Your task to perform on an android device: turn off notifications settings in the gmail app Image 0: 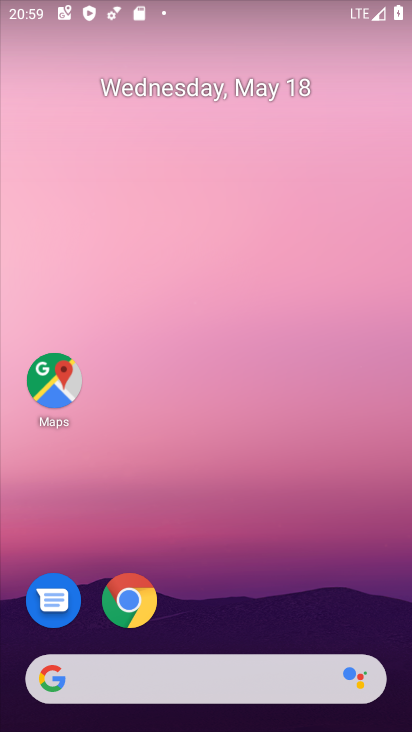
Step 0: drag from (197, 443) to (223, 75)
Your task to perform on an android device: turn off notifications settings in the gmail app Image 1: 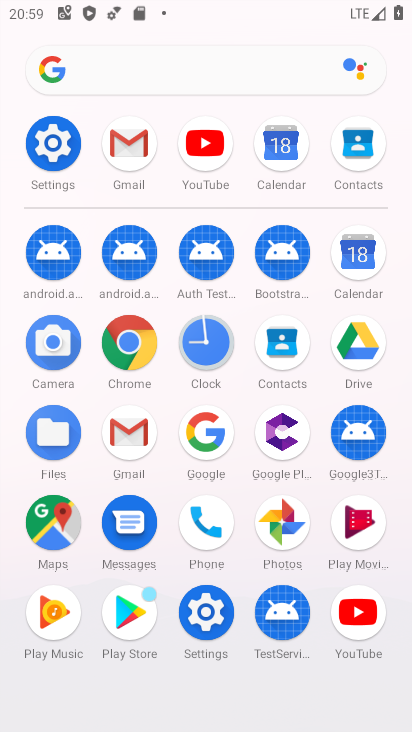
Step 1: click (116, 432)
Your task to perform on an android device: turn off notifications settings in the gmail app Image 2: 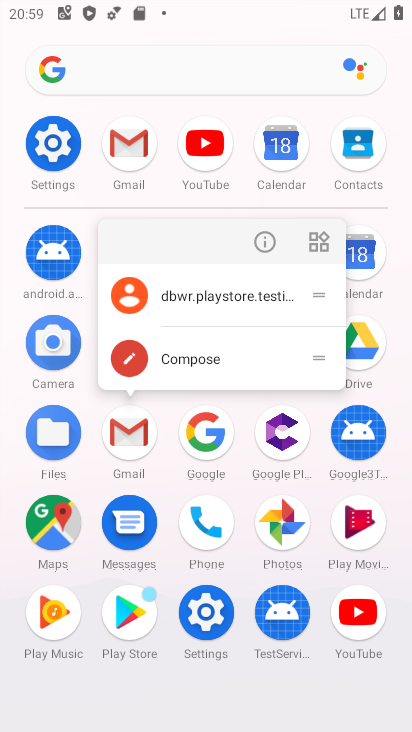
Step 2: click (262, 241)
Your task to perform on an android device: turn off notifications settings in the gmail app Image 3: 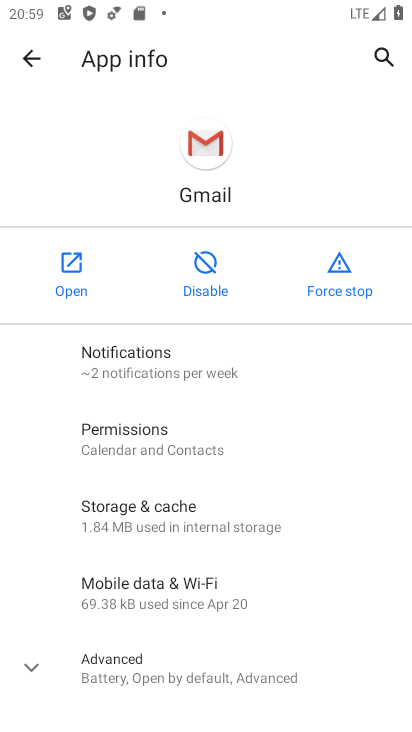
Step 3: click (111, 358)
Your task to perform on an android device: turn off notifications settings in the gmail app Image 4: 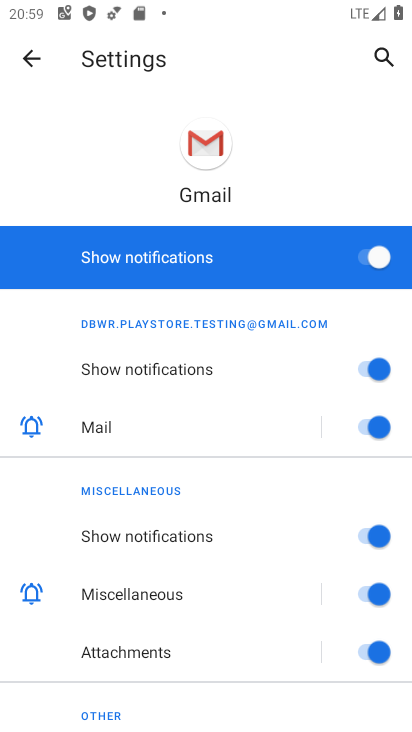
Step 4: click (381, 254)
Your task to perform on an android device: turn off notifications settings in the gmail app Image 5: 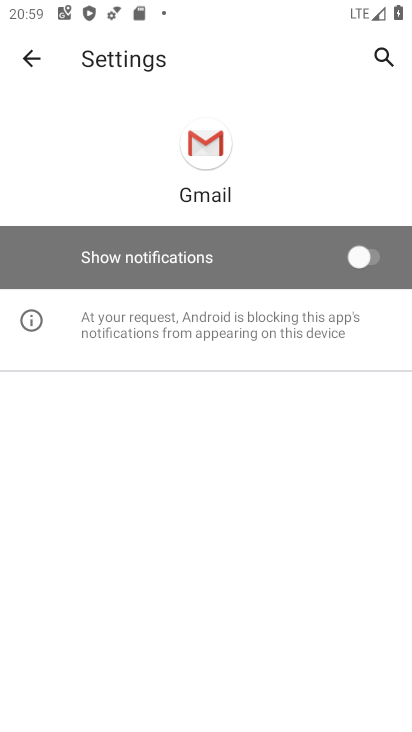
Step 5: task complete